Your task to perform on an android device: Open Google Maps and go to "Timeline" Image 0: 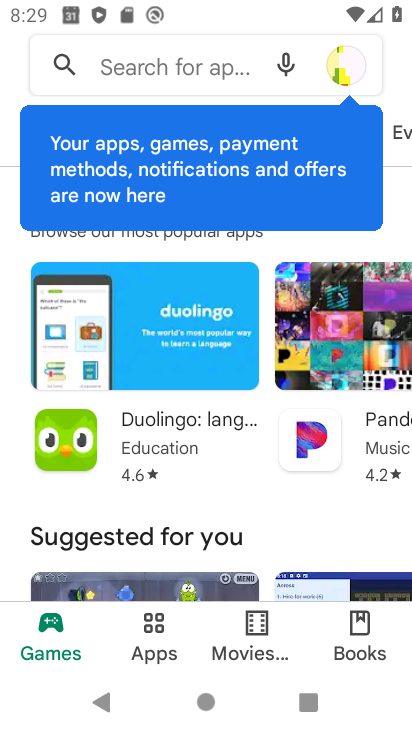
Step 0: press home button
Your task to perform on an android device: Open Google Maps and go to "Timeline" Image 1: 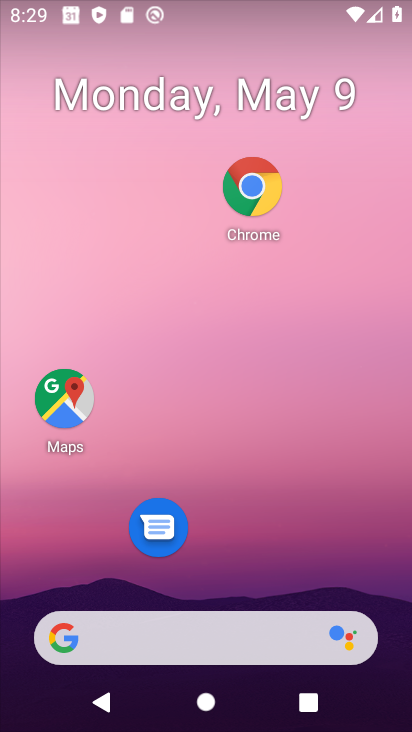
Step 1: drag from (206, 579) to (203, 36)
Your task to perform on an android device: Open Google Maps and go to "Timeline" Image 2: 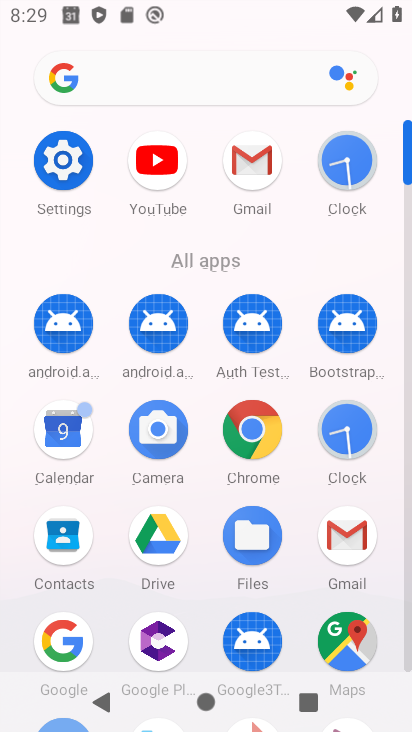
Step 2: click (344, 636)
Your task to perform on an android device: Open Google Maps and go to "Timeline" Image 3: 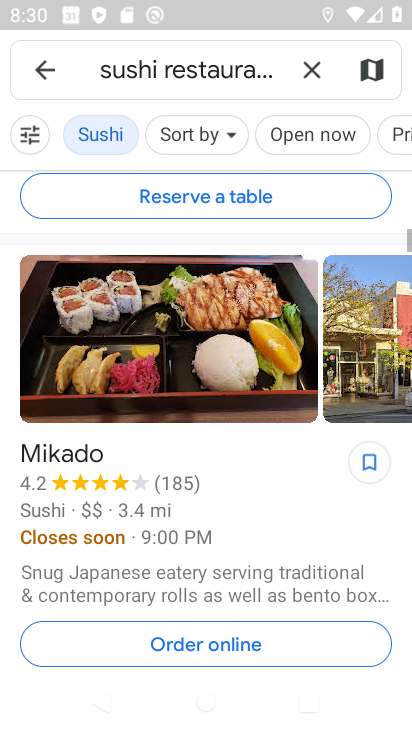
Step 3: click (52, 73)
Your task to perform on an android device: Open Google Maps and go to "Timeline" Image 4: 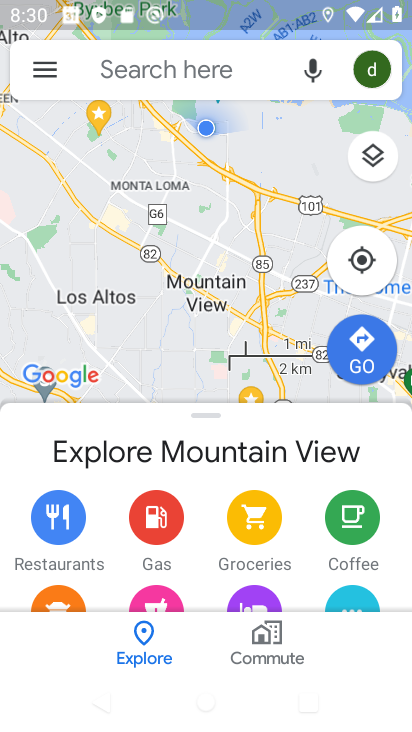
Step 4: click (52, 73)
Your task to perform on an android device: Open Google Maps and go to "Timeline" Image 5: 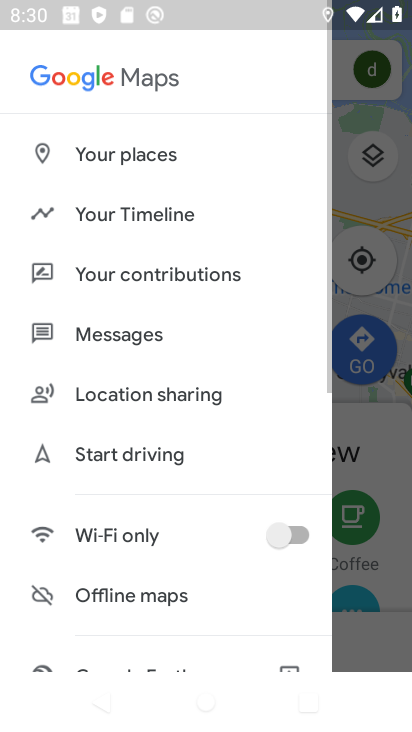
Step 5: click (127, 208)
Your task to perform on an android device: Open Google Maps and go to "Timeline" Image 6: 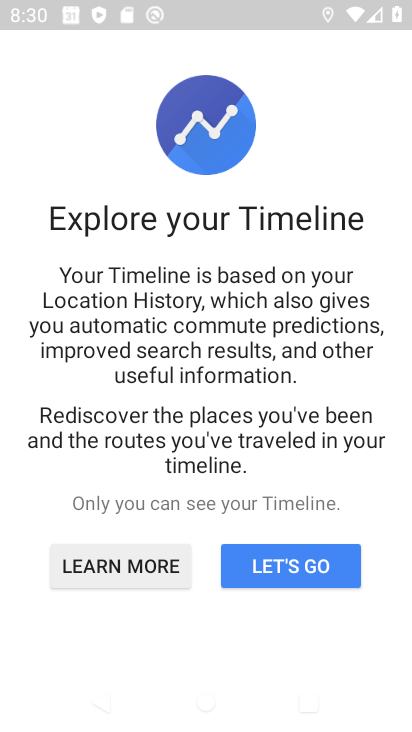
Step 6: click (264, 569)
Your task to perform on an android device: Open Google Maps and go to "Timeline" Image 7: 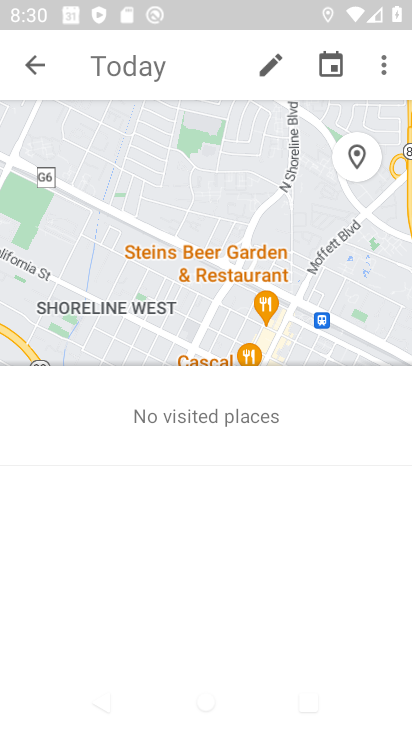
Step 7: task complete